Your task to perform on an android device: open app "DuckDuckGo Privacy Browser" Image 0: 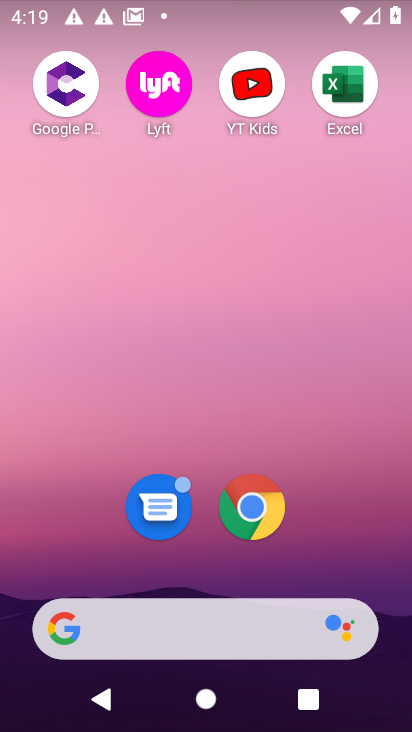
Step 0: drag from (293, 571) to (325, 15)
Your task to perform on an android device: open app "DuckDuckGo Privacy Browser" Image 1: 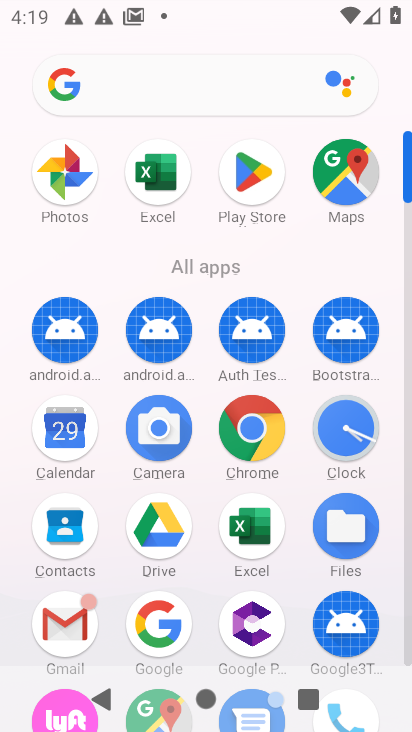
Step 1: click (263, 178)
Your task to perform on an android device: open app "DuckDuckGo Privacy Browser" Image 2: 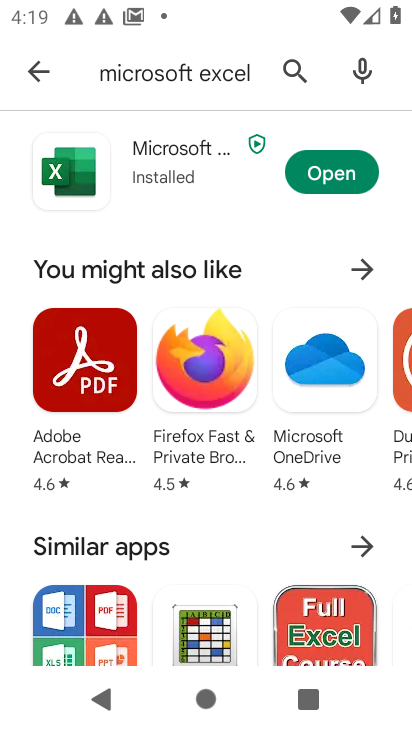
Step 2: click (289, 65)
Your task to perform on an android device: open app "DuckDuckGo Privacy Browser" Image 3: 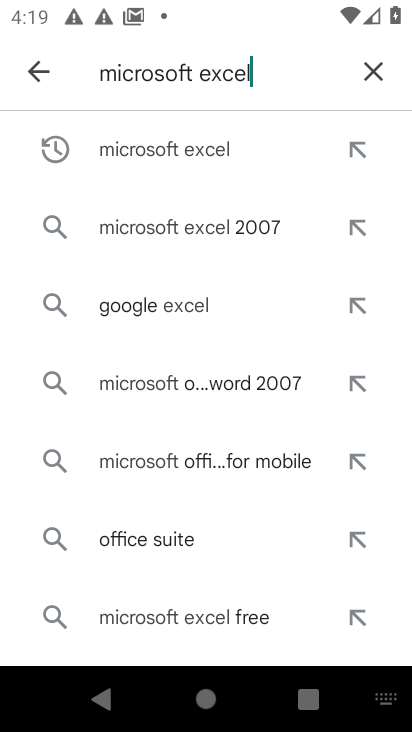
Step 3: click (363, 84)
Your task to perform on an android device: open app "DuckDuckGo Privacy Browser" Image 4: 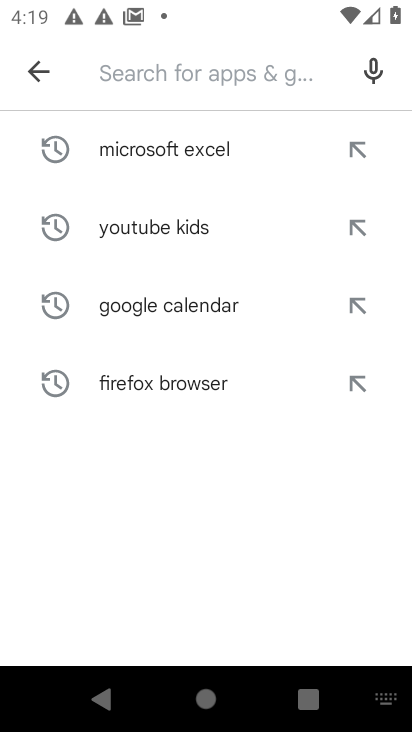
Step 4: click (247, 77)
Your task to perform on an android device: open app "DuckDuckGo Privacy Browser" Image 5: 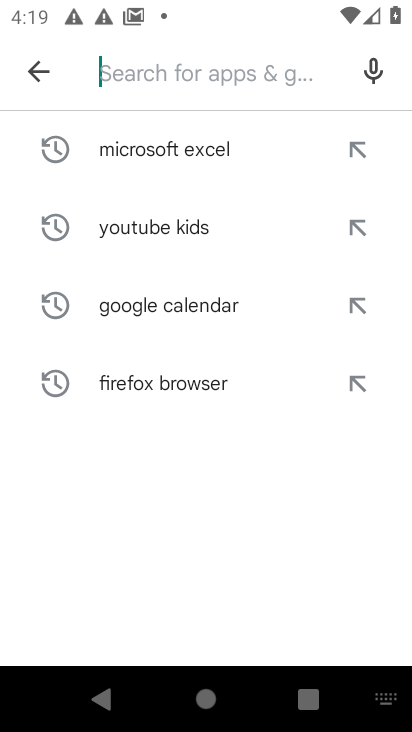
Step 5: type "DuckDuckGo Privacy Browser"
Your task to perform on an android device: open app "DuckDuckGo Privacy Browser" Image 6: 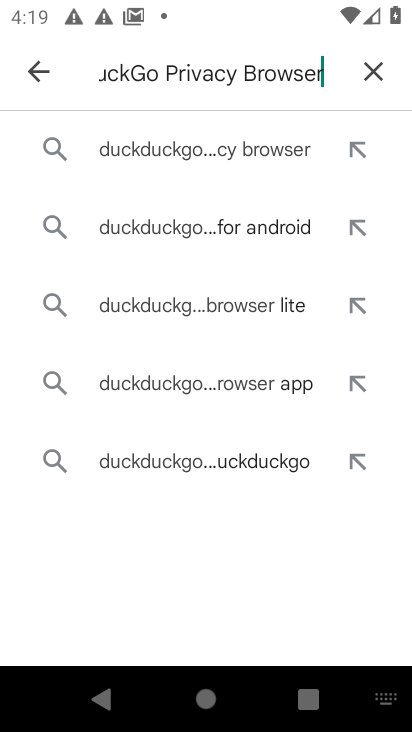
Step 6: click (185, 159)
Your task to perform on an android device: open app "DuckDuckGo Privacy Browser" Image 7: 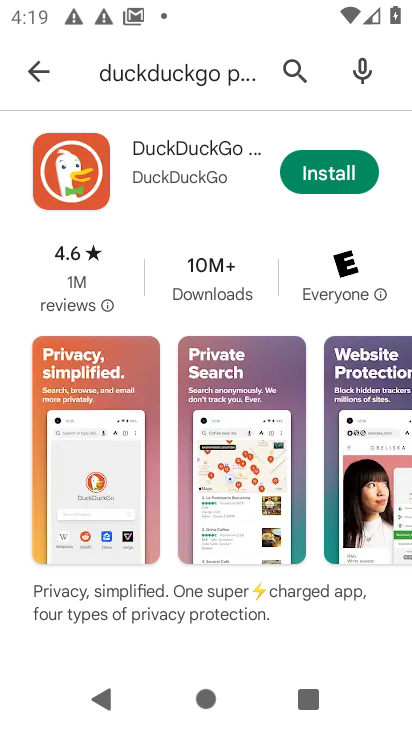
Step 7: task complete